Your task to perform on an android device: Open notification settings Image 0: 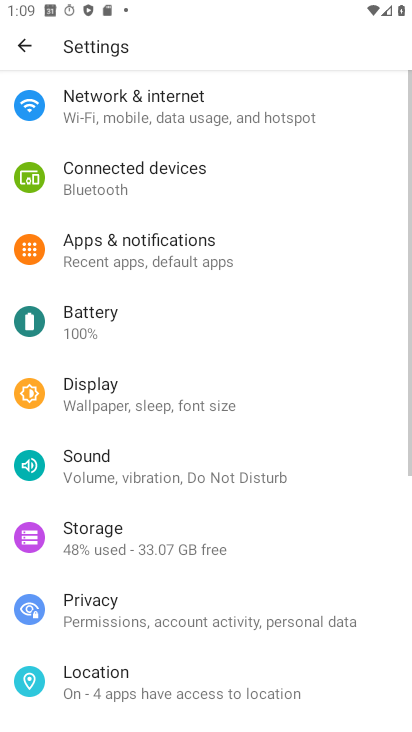
Step 0: click (192, 250)
Your task to perform on an android device: Open notification settings Image 1: 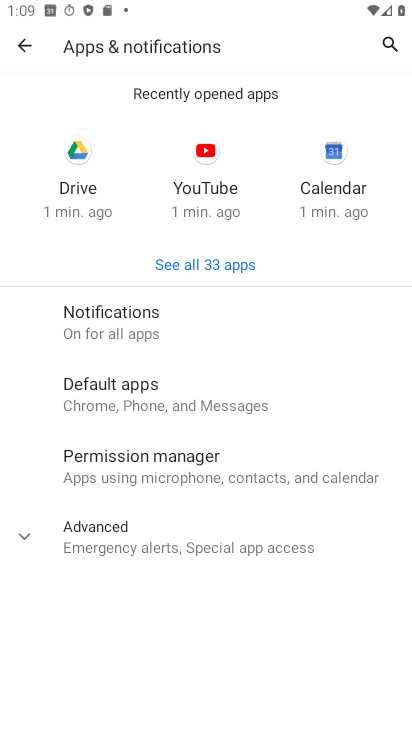
Step 1: click (157, 330)
Your task to perform on an android device: Open notification settings Image 2: 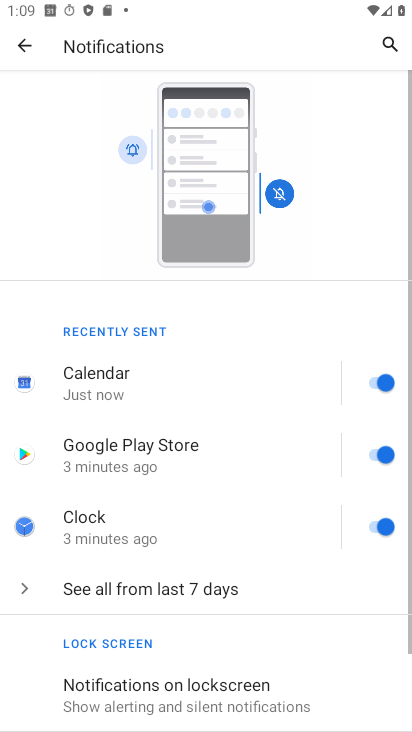
Step 2: task complete